Your task to perform on an android device: change alarm snooze length Image 0: 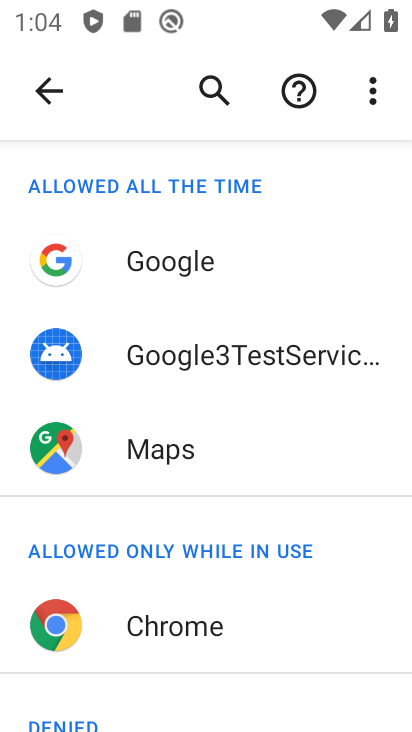
Step 0: press home button
Your task to perform on an android device: change alarm snooze length Image 1: 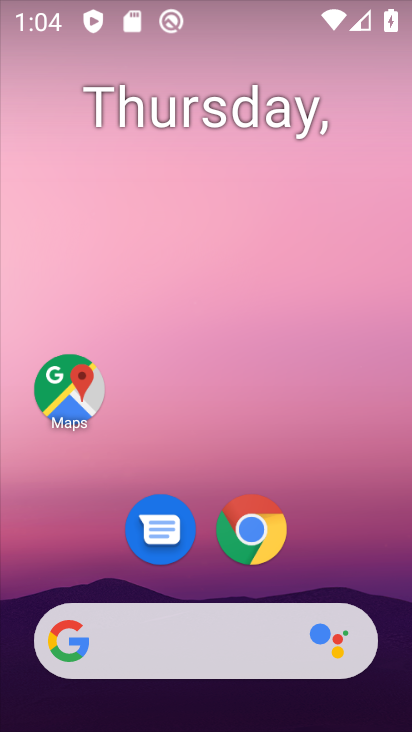
Step 1: drag from (206, 716) to (207, 106)
Your task to perform on an android device: change alarm snooze length Image 2: 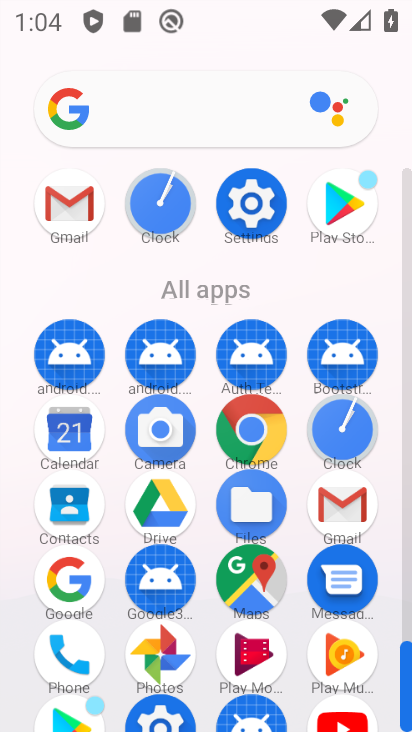
Step 2: click (346, 419)
Your task to perform on an android device: change alarm snooze length Image 3: 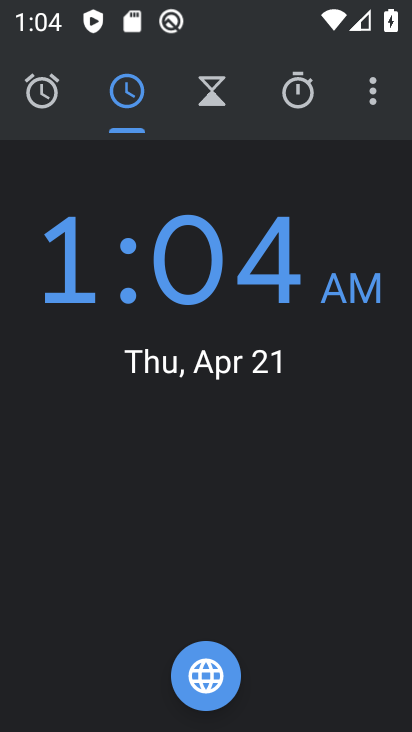
Step 3: click (371, 87)
Your task to perform on an android device: change alarm snooze length Image 4: 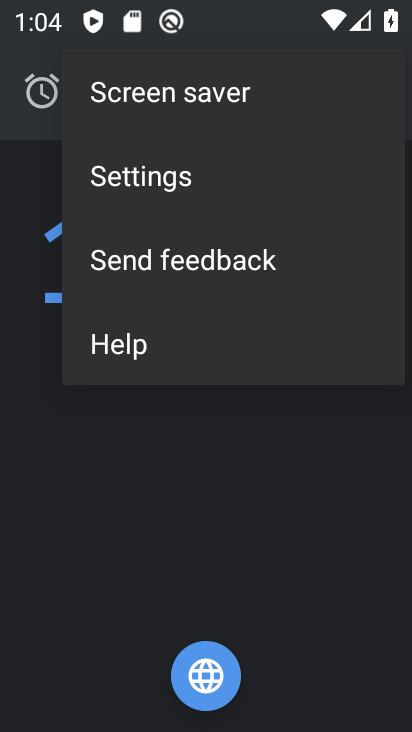
Step 4: click (151, 174)
Your task to perform on an android device: change alarm snooze length Image 5: 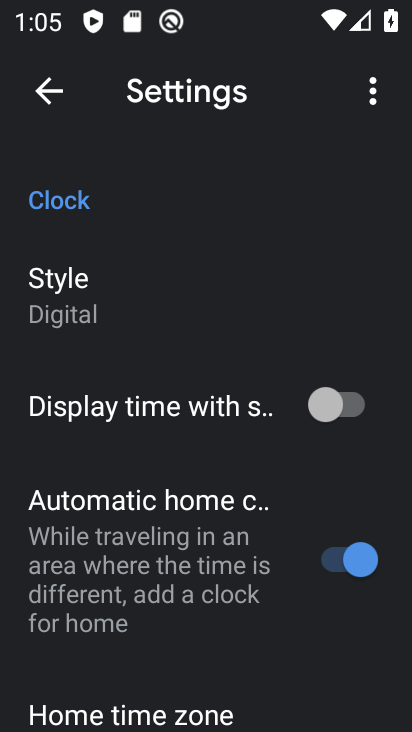
Step 5: drag from (151, 660) to (142, 200)
Your task to perform on an android device: change alarm snooze length Image 6: 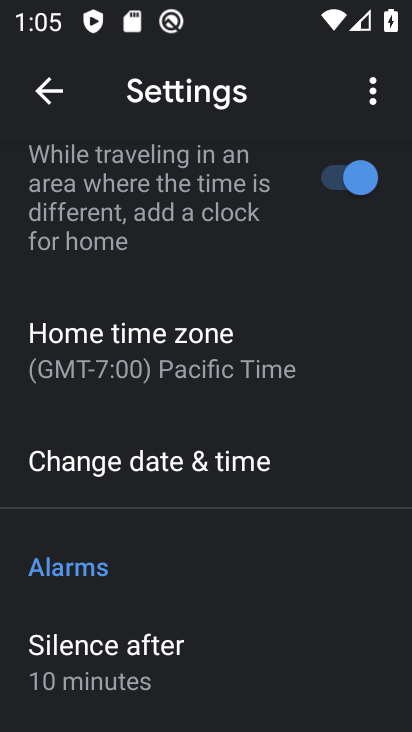
Step 6: drag from (222, 684) to (226, 379)
Your task to perform on an android device: change alarm snooze length Image 7: 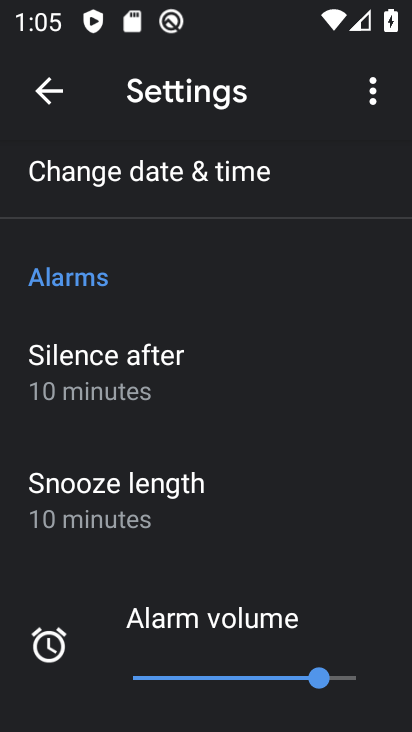
Step 7: click (99, 495)
Your task to perform on an android device: change alarm snooze length Image 8: 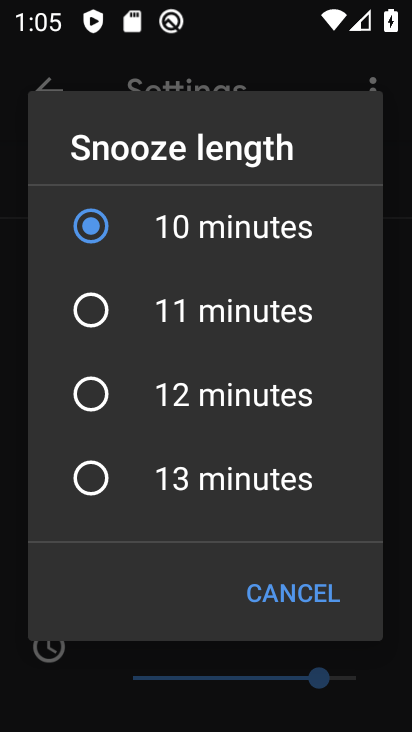
Step 8: click (105, 472)
Your task to perform on an android device: change alarm snooze length Image 9: 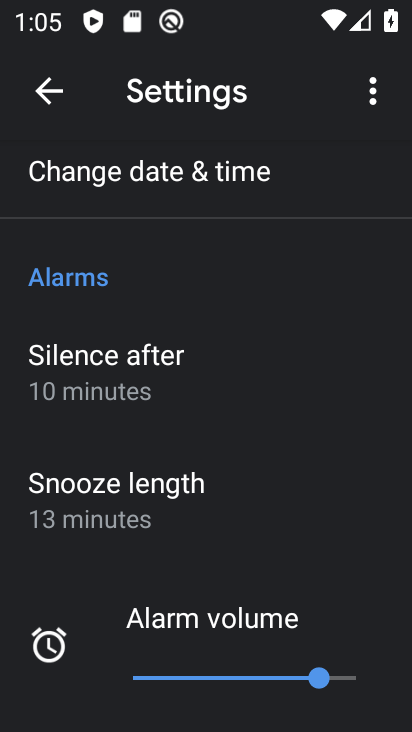
Step 9: task complete